Your task to perform on an android device: Open calendar and show me the fourth week of next month Image 0: 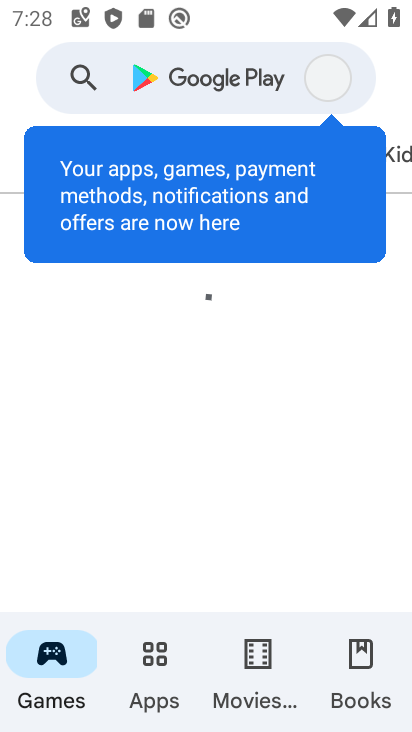
Step 0: press home button
Your task to perform on an android device: Open calendar and show me the fourth week of next month Image 1: 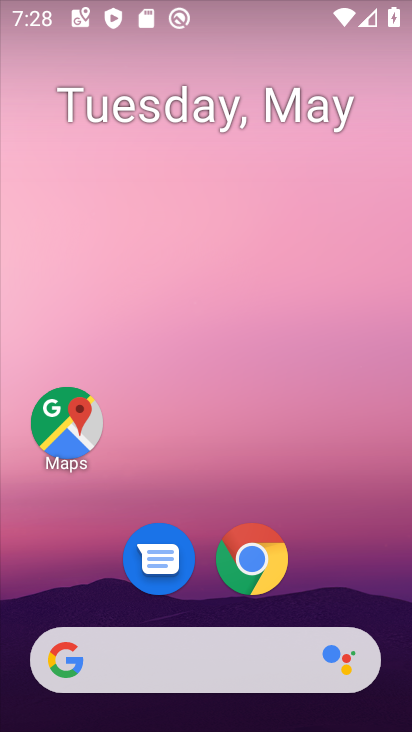
Step 1: drag from (401, 660) to (292, 47)
Your task to perform on an android device: Open calendar and show me the fourth week of next month Image 2: 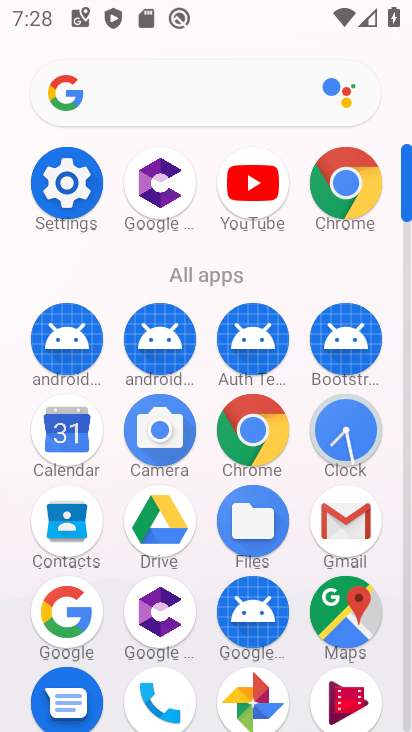
Step 2: click (75, 451)
Your task to perform on an android device: Open calendar and show me the fourth week of next month Image 3: 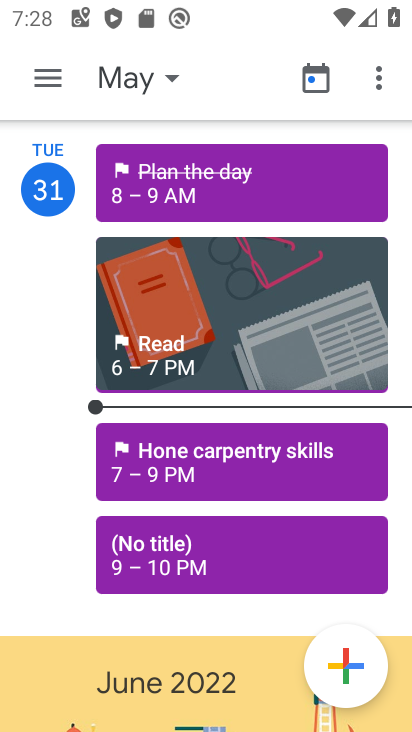
Step 3: click (121, 95)
Your task to perform on an android device: Open calendar and show me the fourth week of next month Image 4: 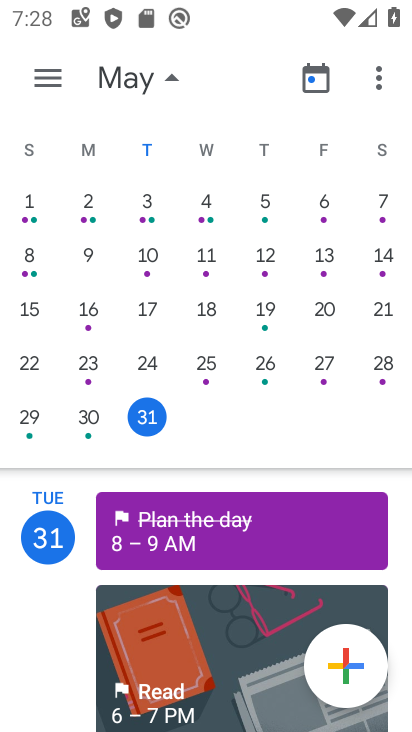
Step 4: drag from (378, 314) to (44, 299)
Your task to perform on an android device: Open calendar and show me the fourth week of next month Image 5: 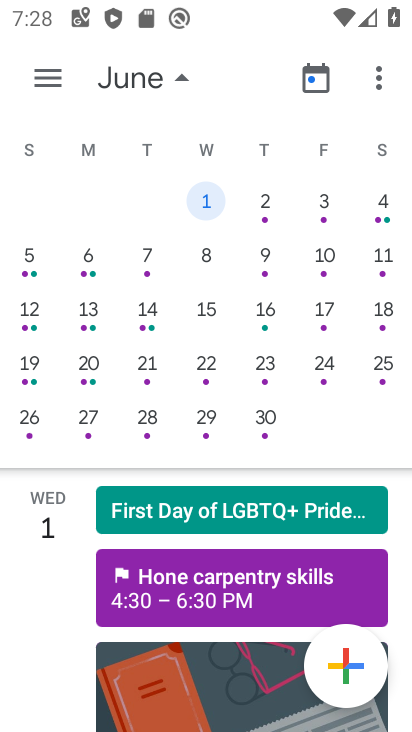
Step 5: click (152, 432)
Your task to perform on an android device: Open calendar and show me the fourth week of next month Image 6: 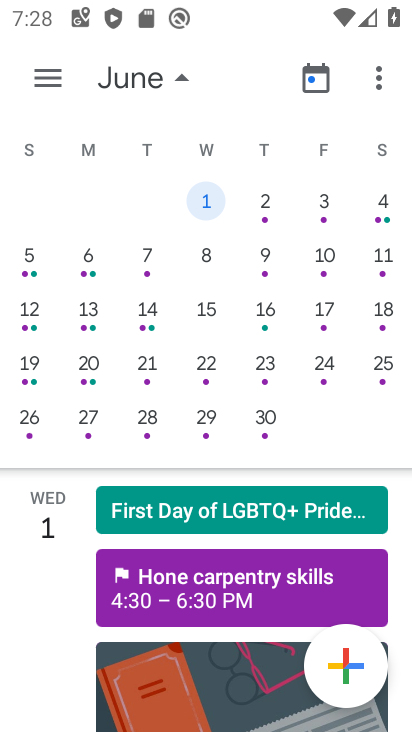
Step 6: click (152, 419)
Your task to perform on an android device: Open calendar and show me the fourth week of next month Image 7: 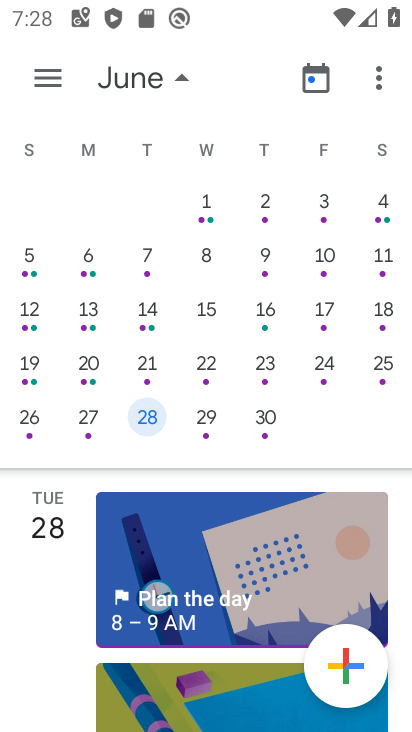
Step 7: task complete